Your task to perform on an android device: When is my next meeting? Image 0: 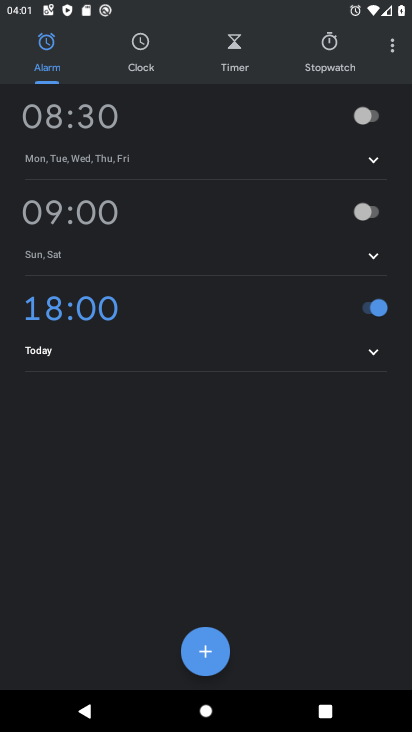
Step 0: press home button
Your task to perform on an android device: When is my next meeting? Image 1: 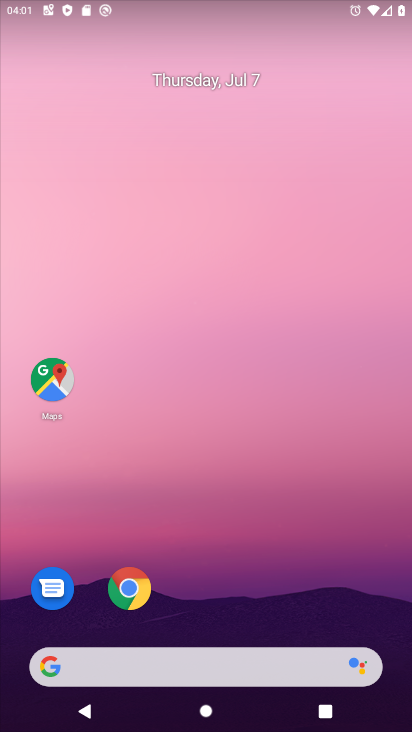
Step 1: drag from (172, 643) to (213, 285)
Your task to perform on an android device: When is my next meeting? Image 2: 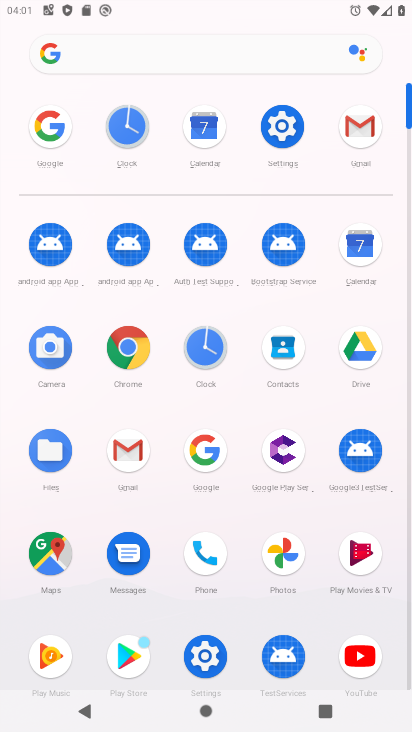
Step 2: click (358, 264)
Your task to perform on an android device: When is my next meeting? Image 3: 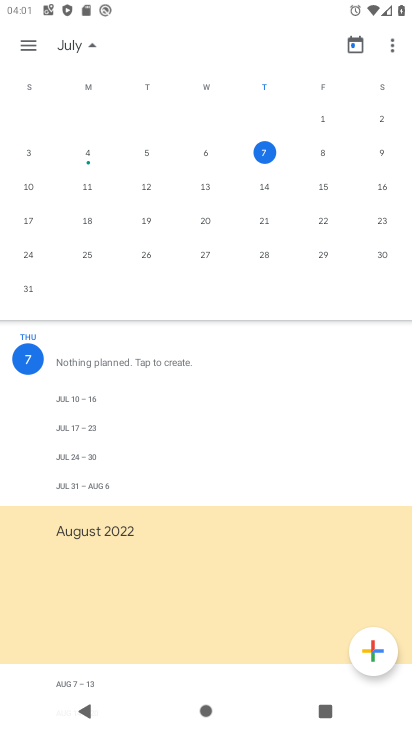
Step 3: click (72, 397)
Your task to perform on an android device: When is my next meeting? Image 4: 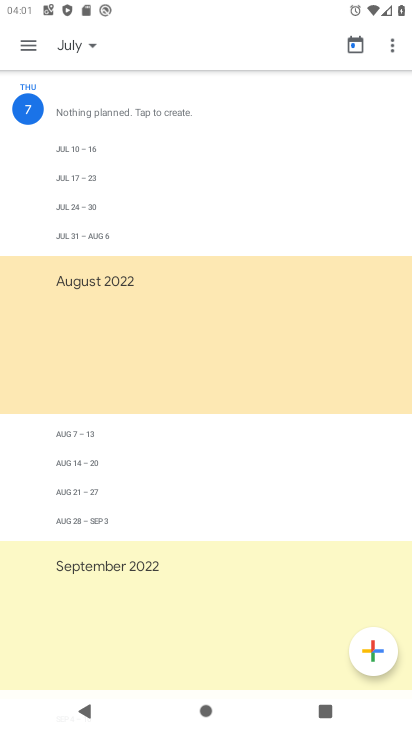
Step 4: click (86, 42)
Your task to perform on an android device: When is my next meeting? Image 5: 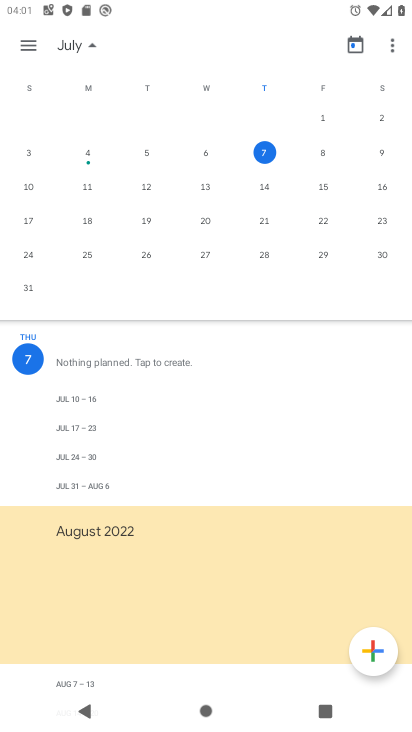
Step 5: task complete